Your task to perform on an android device: turn off sleep mode Image 0: 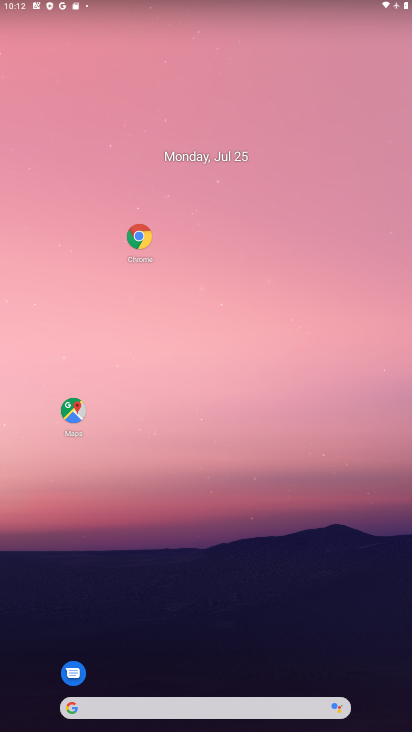
Step 0: drag from (308, 665) to (329, 313)
Your task to perform on an android device: turn off sleep mode Image 1: 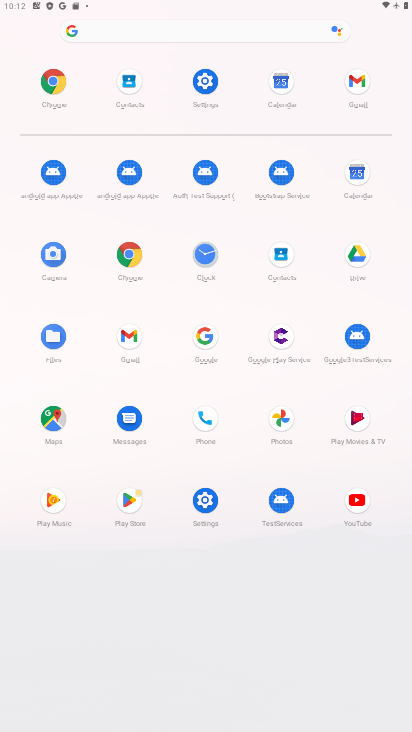
Step 1: click (202, 95)
Your task to perform on an android device: turn off sleep mode Image 2: 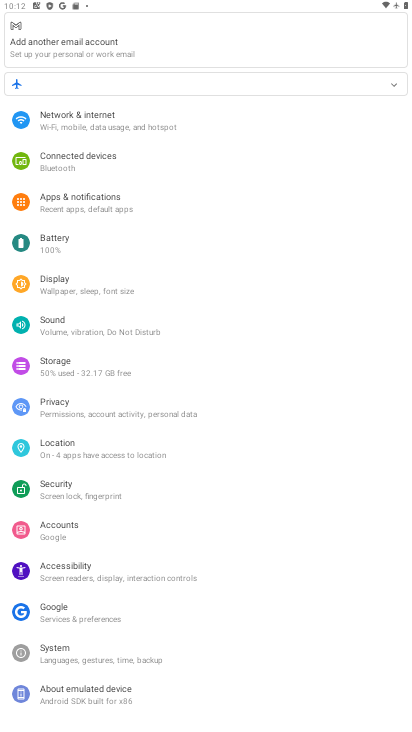
Step 2: task complete